Your task to perform on an android device: change text size in settings app Image 0: 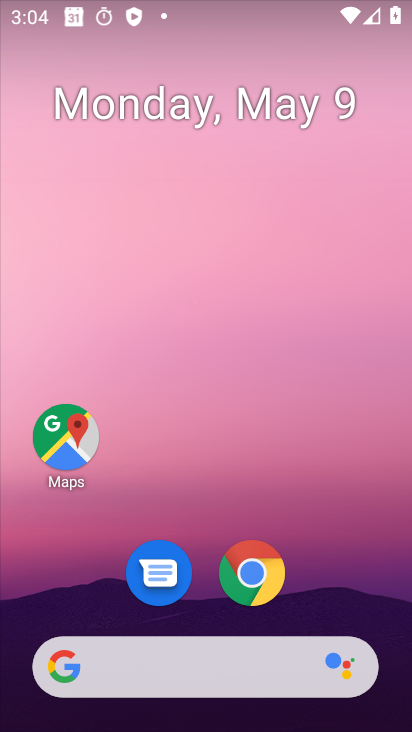
Step 0: drag from (358, 637) to (195, 302)
Your task to perform on an android device: change text size in settings app Image 1: 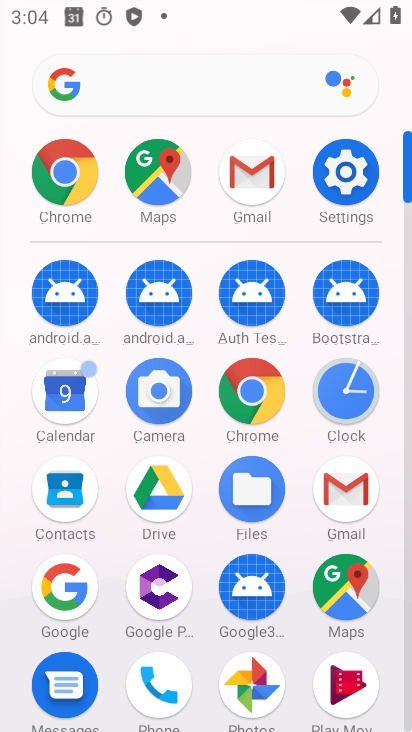
Step 1: click (350, 180)
Your task to perform on an android device: change text size in settings app Image 2: 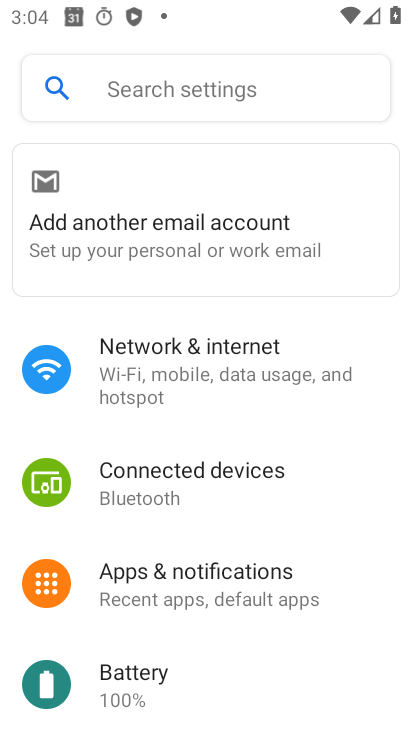
Step 2: click (225, 588)
Your task to perform on an android device: change text size in settings app Image 3: 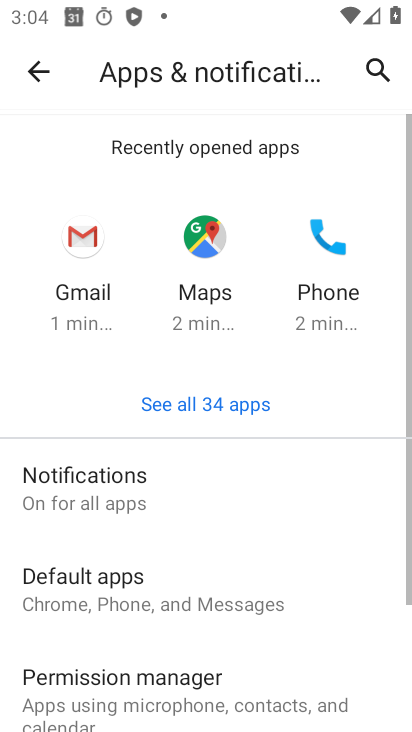
Step 3: click (33, 78)
Your task to perform on an android device: change text size in settings app Image 4: 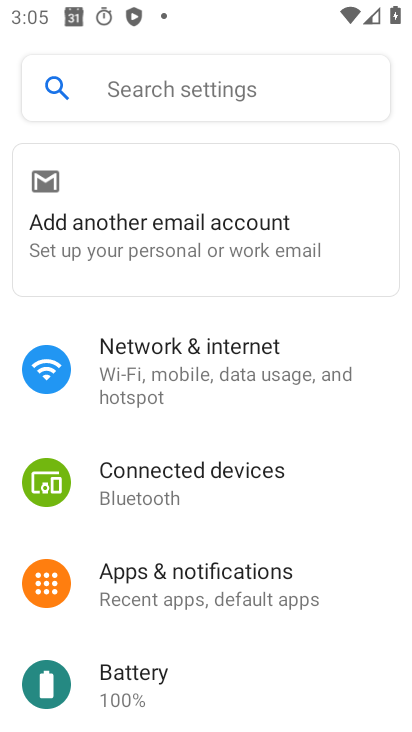
Step 4: drag from (207, 673) to (161, 143)
Your task to perform on an android device: change text size in settings app Image 5: 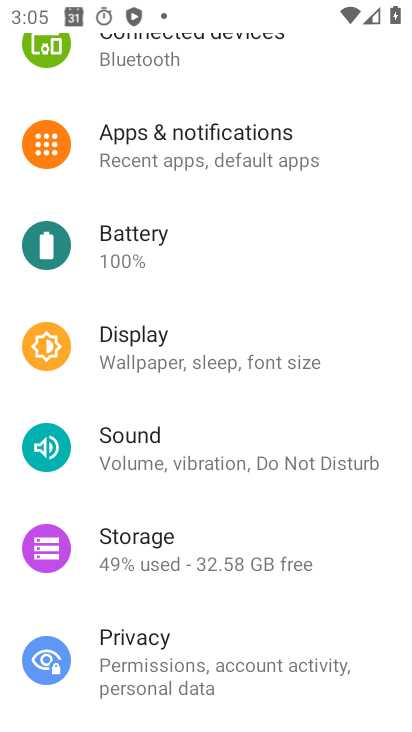
Step 5: click (193, 358)
Your task to perform on an android device: change text size in settings app Image 6: 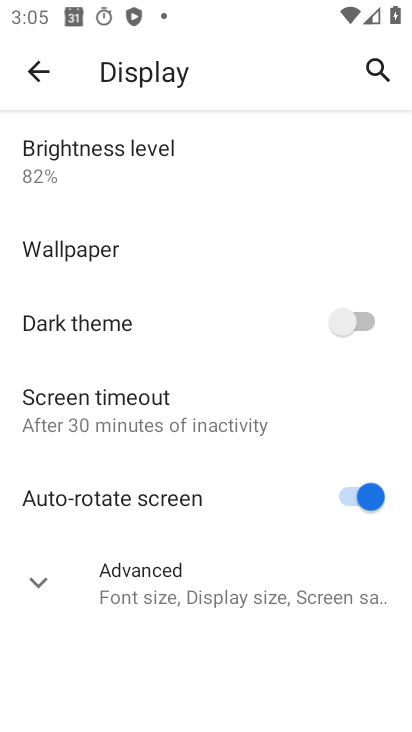
Step 6: click (90, 419)
Your task to perform on an android device: change text size in settings app Image 7: 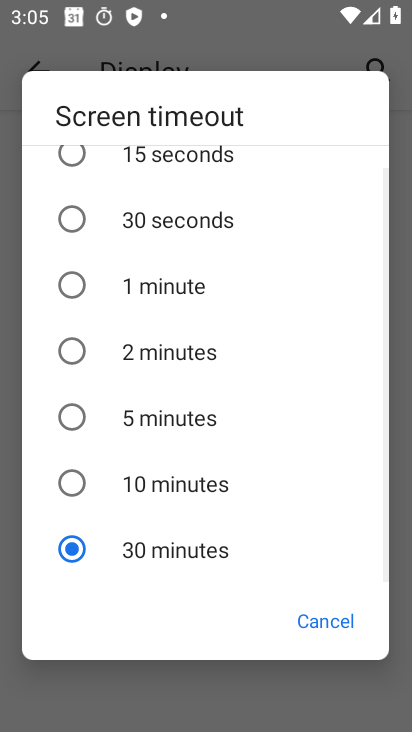
Step 7: click (332, 616)
Your task to perform on an android device: change text size in settings app Image 8: 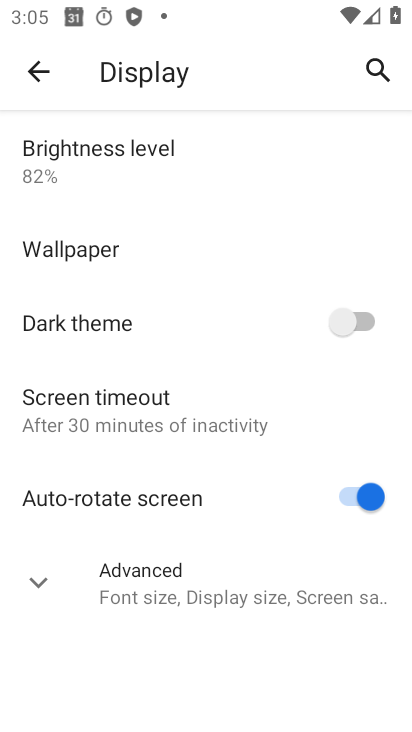
Step 8: click (193, 575)
Your task to perform on an android device: change text size in settings app Image 9: 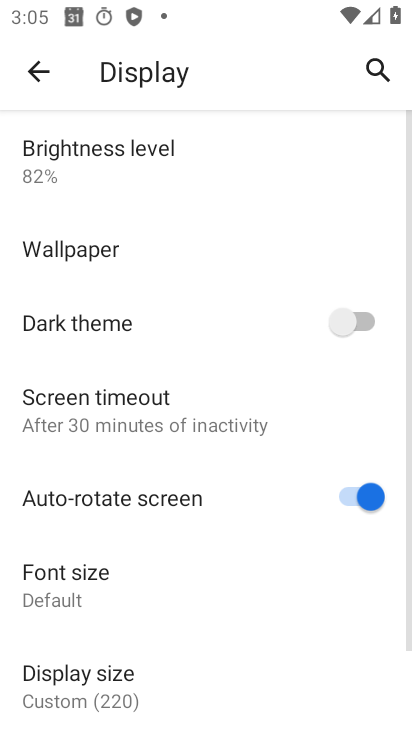
Step 9: click (68, 592)
Your task to perform on an android device: change text size in settings app Image 10: 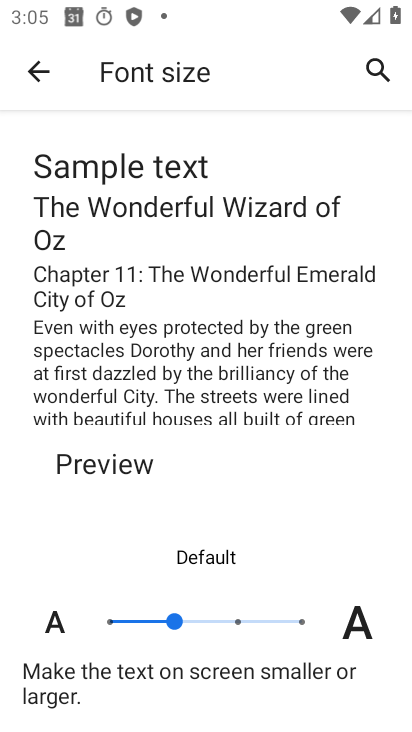
Step 10: click (232, 616)
Your task to perform on an android device: change text size in settings app Image 11: 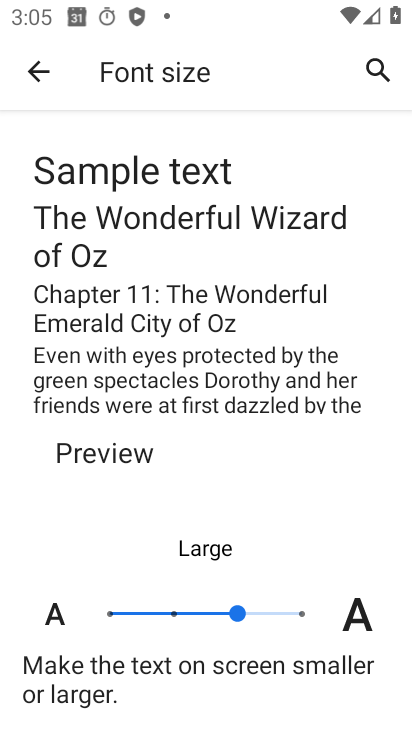
Step 11: task complete